Your task to perform on an android device: see sites visited before in the chrome app Image 0: 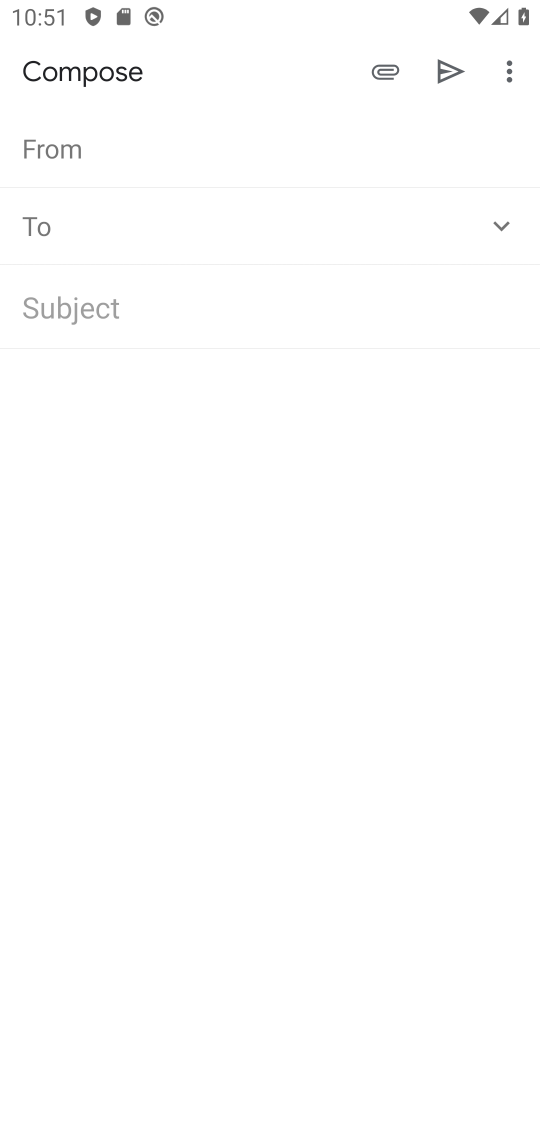
Step 0: drag from (258, 992) to (251, 40)
Your task to perform on an android device: see sites visited before in the chrome app Image 1: 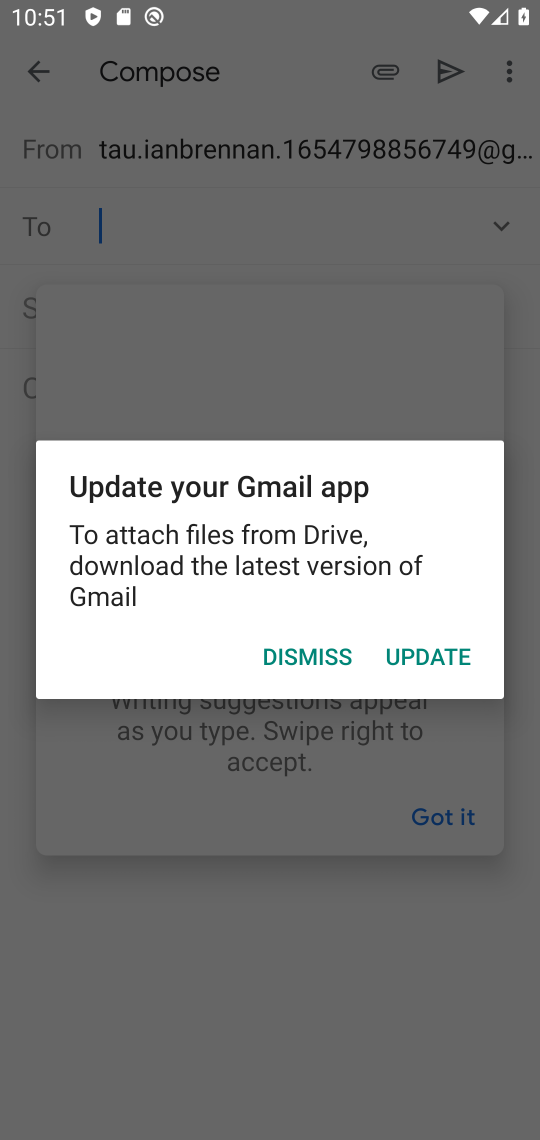
Step 1: press home button
Your task to perform on an android device: see sites visited before in the chrome app Image 2: 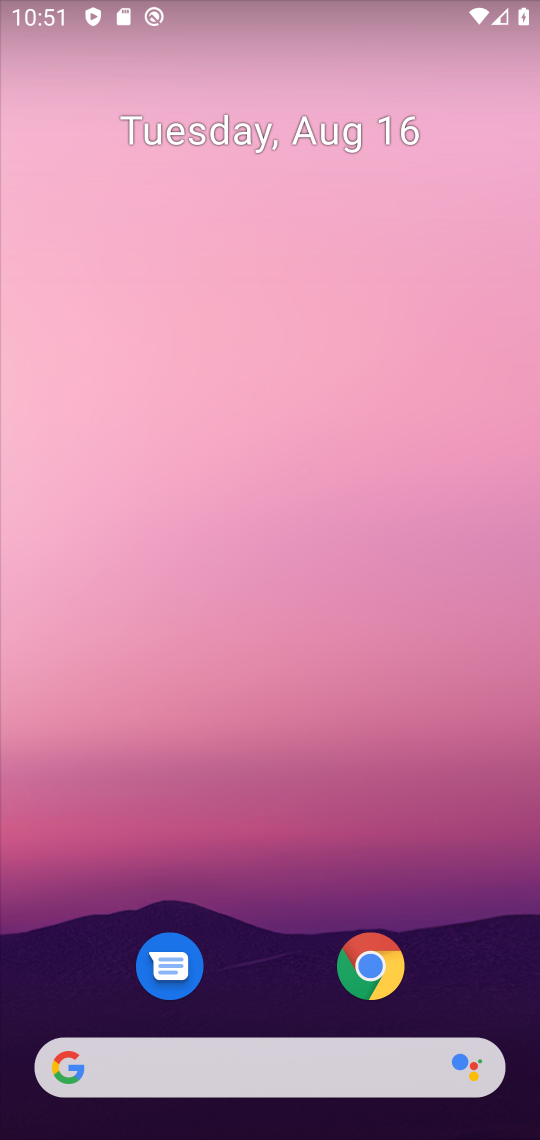
Step 2: click (370, 961)
Your task to perform on an android device: see sites visited before in the chrome app Image 3: 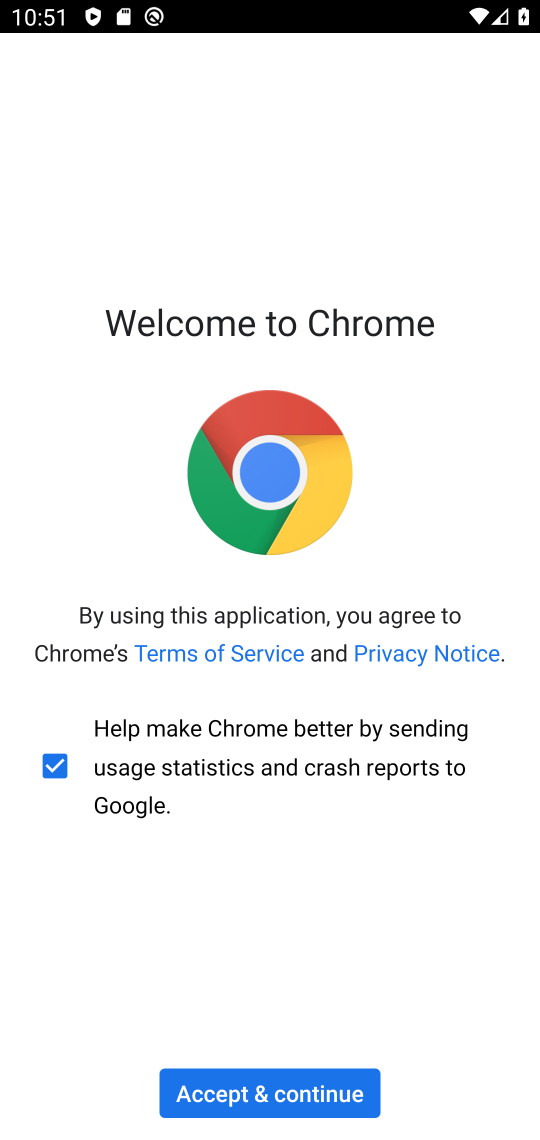
Step 3: click (280, 1095)
Your task to perform on an android device: see sites visited before in the chrome app Image 4: 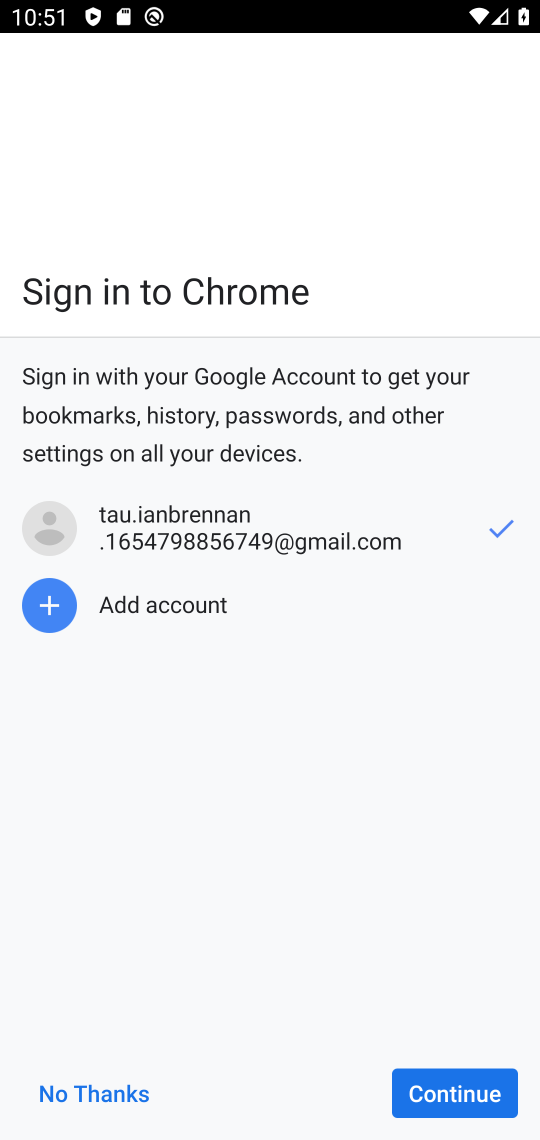
Step 4: click (404, 1084)
Your task to perform on an android device: see sites visited before in the chrome app Image 5: 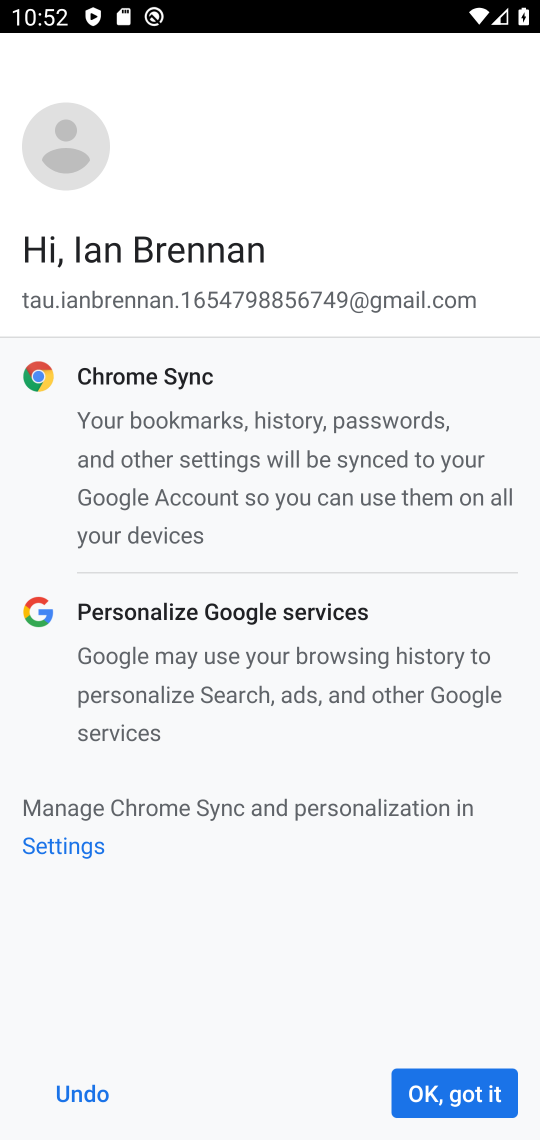
Step 5: click (410, 1078)
Your task to perform on an android device: see sites visited before in the chrome app Image 6: 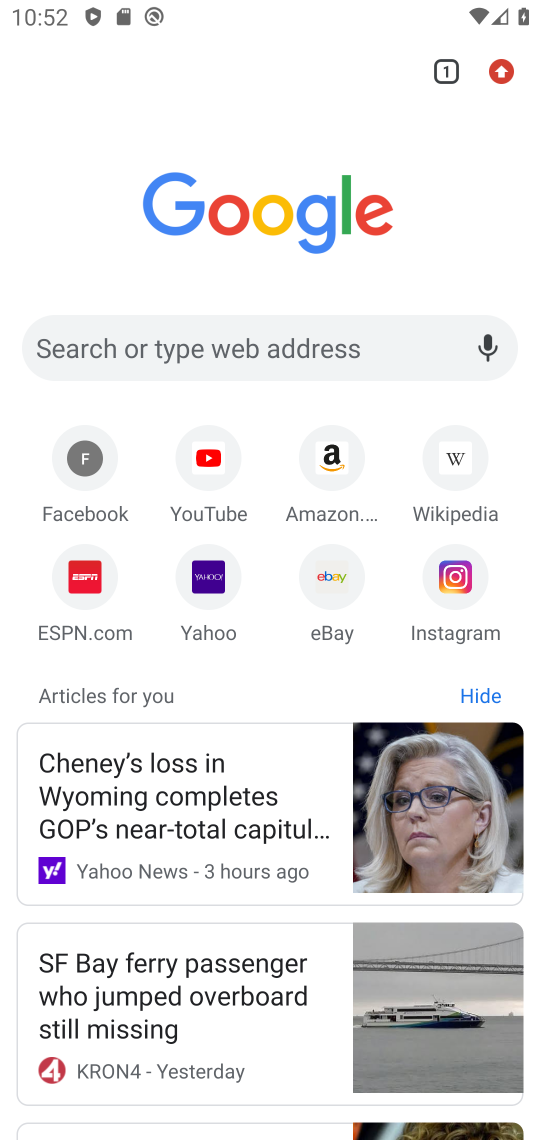
Step 6: click (490, 63)
Your task to perform on an android device: see sites visited before in the chrome app Image 7: 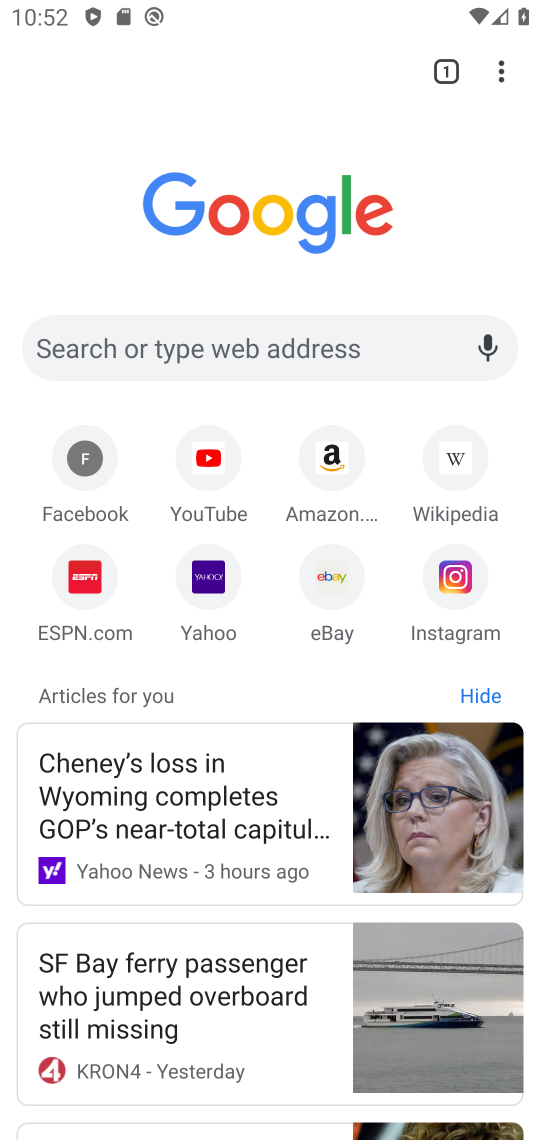
Step 7: click (497, 79)
Your task to perform on an android device: see sites visited before in the chrome app Image 8: 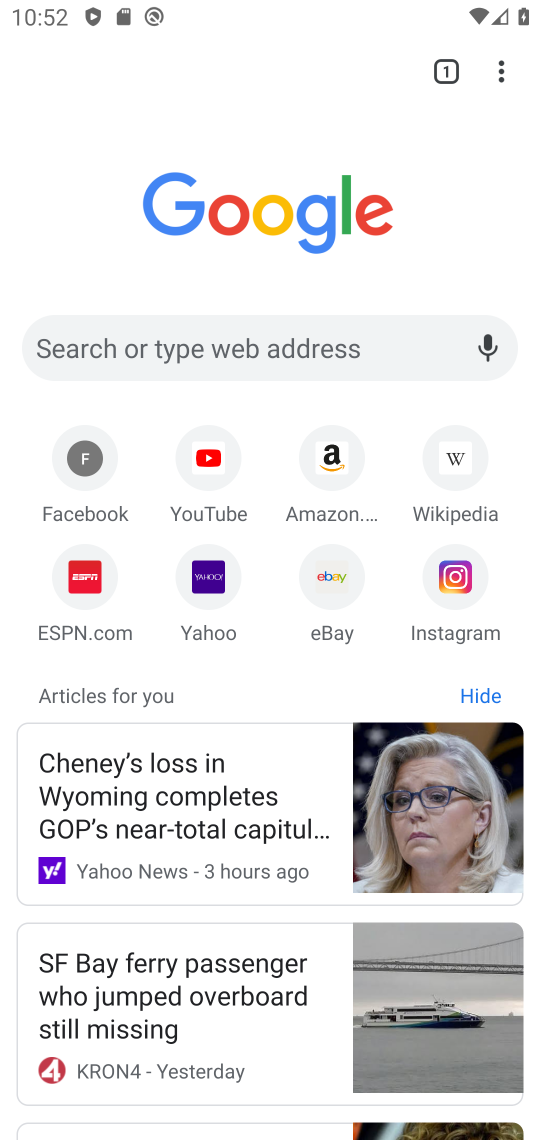
Step 8: click (495, 71)
Your task to perform on an android device: see sites visited before in the chrome app Image 9: 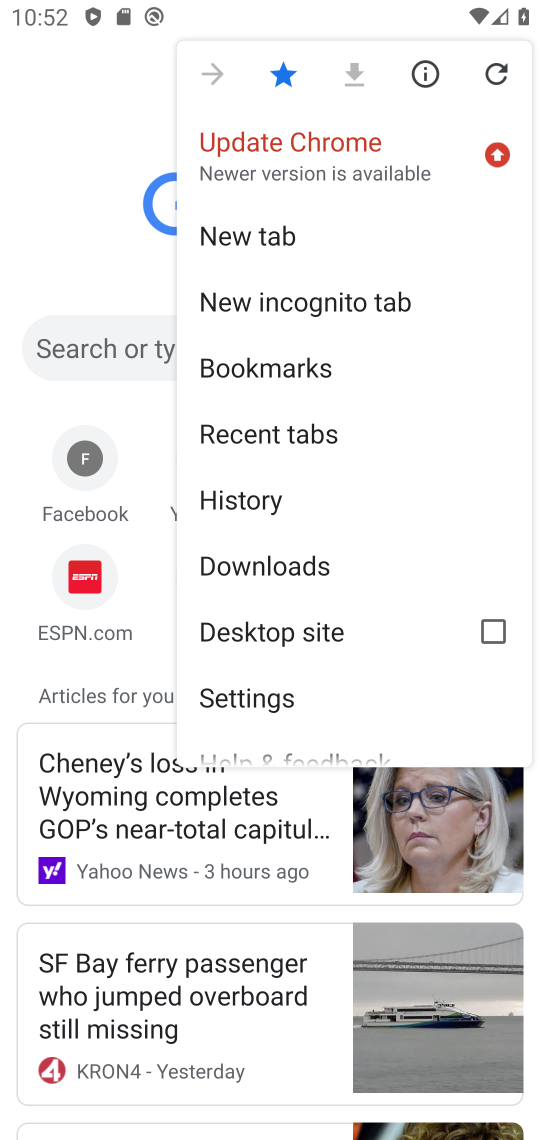
Step 9: click (258, 498)
Your task to perform on an android device: see sites visited before in the chrome app Image 10: 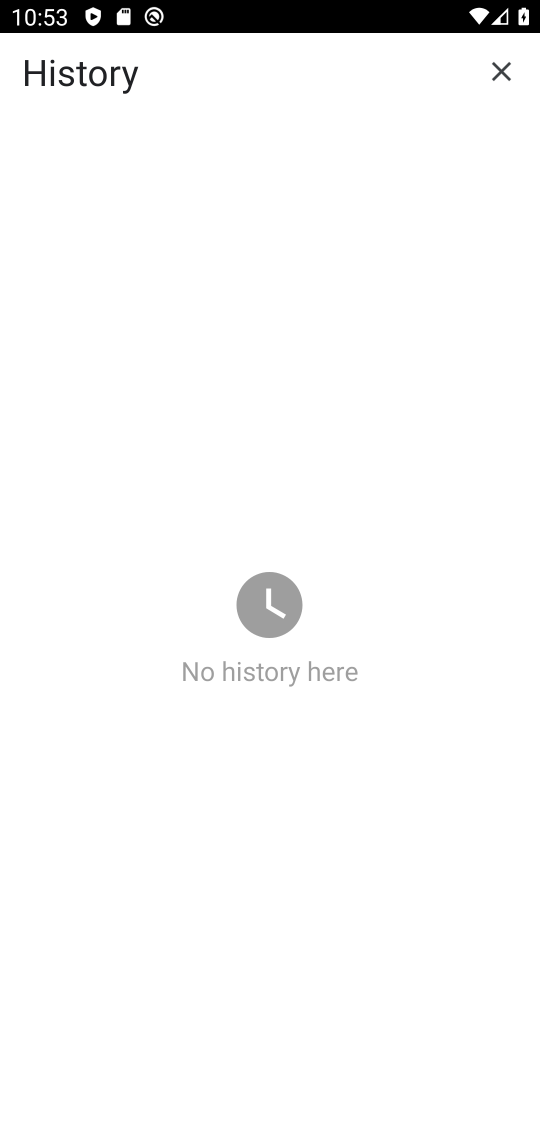
Step 10: task complete